Your task to perform on an android device: What's the weather today? Image 0: 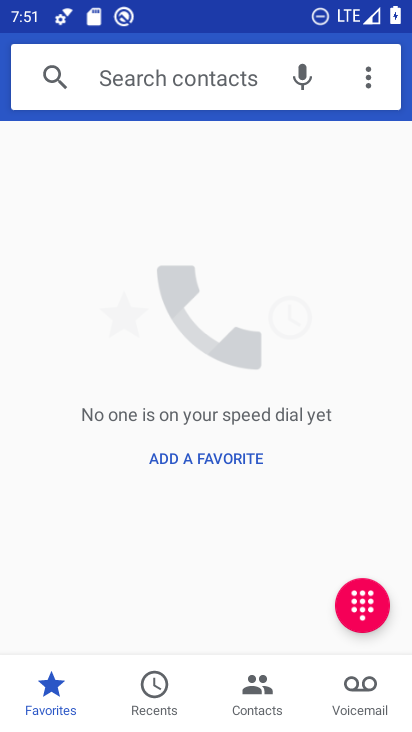
Step 0: press back button
Your task to perform on an android device: What's the weather today? Image 1: 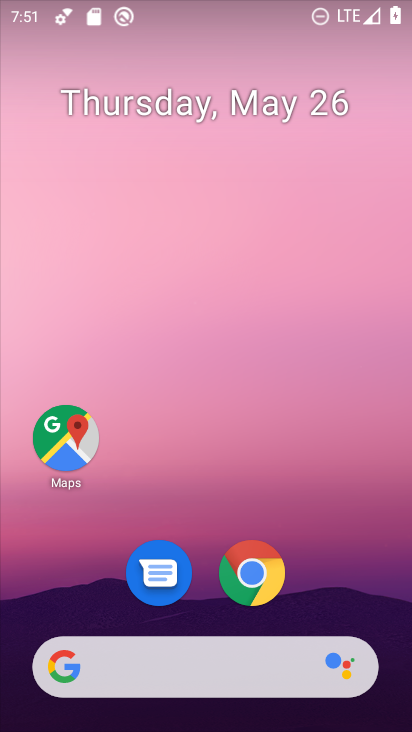
Step 1: drag from (336, 599) to (221, 25)
Your task to perform on an android device: What's the weather today? Image 2: 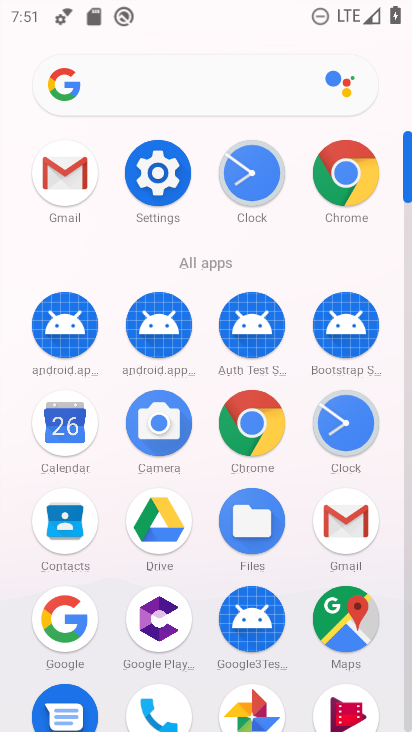
Step 2: drag from (11, 613) to (3, 346)
Your task to perform on an android device: What's the weather today? Image 3: 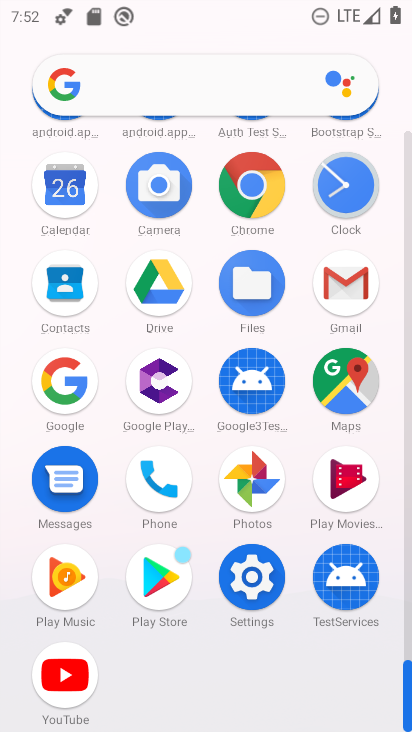
Step 3: drag from (6, 288) to (8, 536)
Your task to perform on an android device: What's the weather today? Image 4: 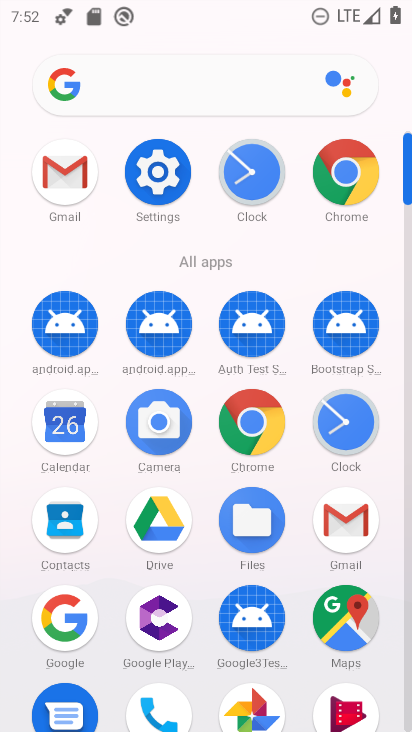
Step 4: click (250, 420)
Your task to perform on an android device: What's the weather today? Image 5: 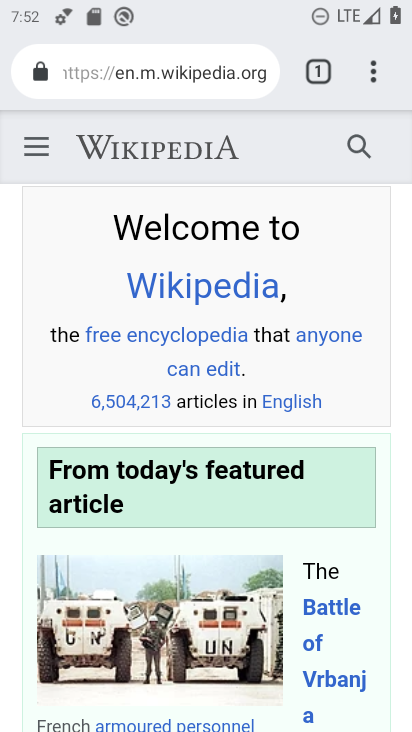
Step 5: click (187, 65)
Your task to perform on an android device: What's the weather today? Image 6: 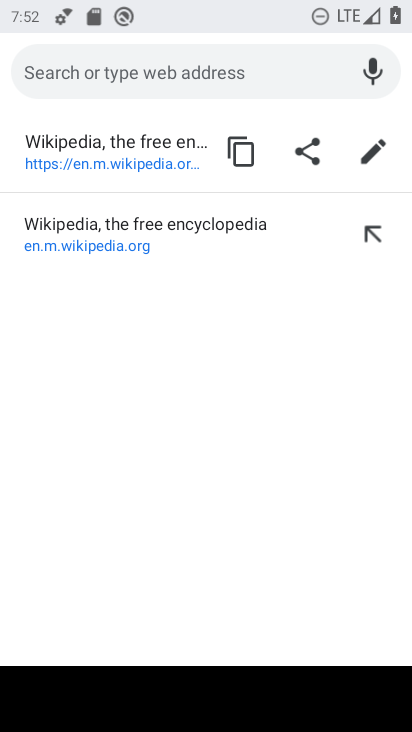
Step 6: type "What's the weather today?"
Your task to perform on an android device: What's the weather today? Image 7: 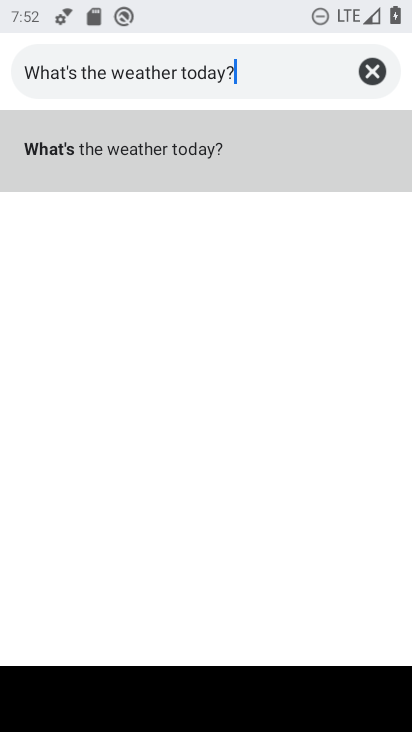
Step 7: click (207, 158)
Your task to perform on an android device: What's the weather today? Image 8: 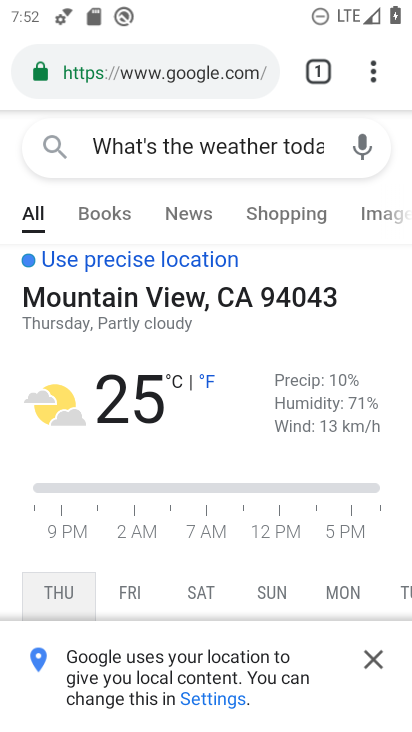
Step 8: task complete